Your task to perform on an android device: Open sound settings Image 0: 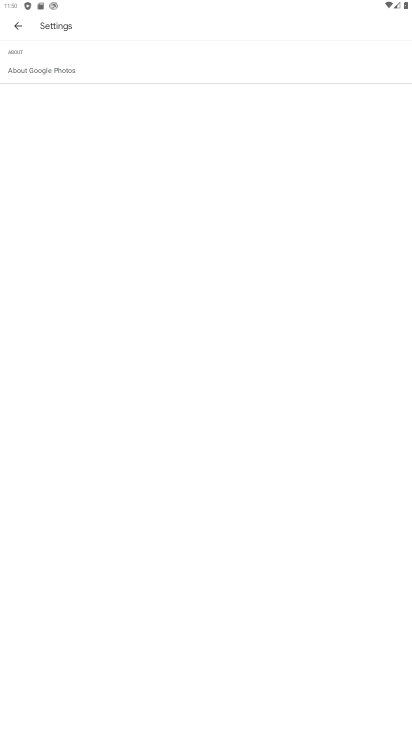
Step 0: press home button
Your task to perform on an android device: Open sound settings Image 1: 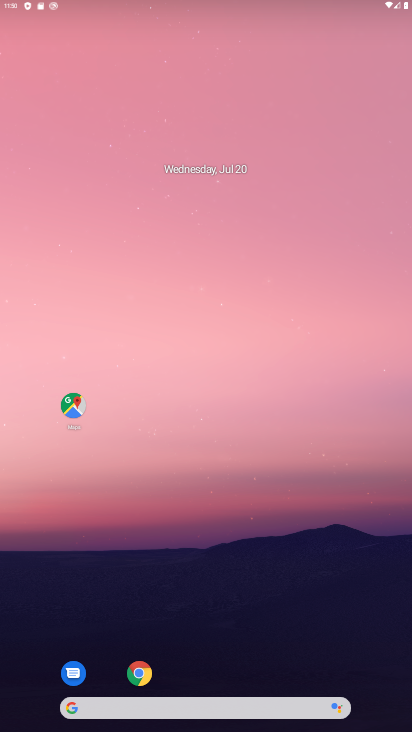
Step 1: drag from (180, 691) to (217, 166)
Your task to perform on an android device: Open sound settings Image 2: 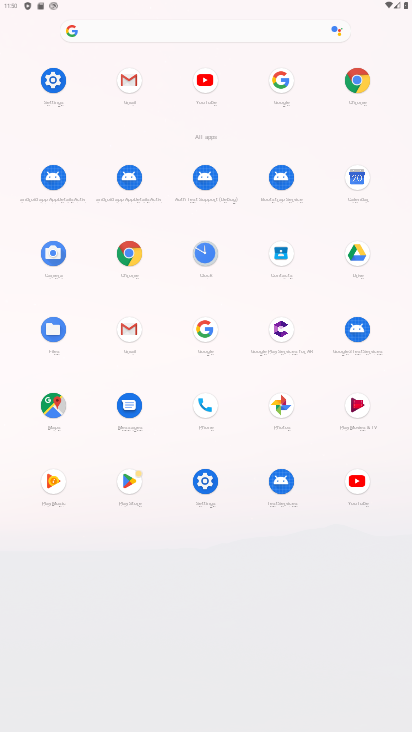
Step 2: click (50, 76)
Your task to perform on an android device: Open sound settings Image 3: 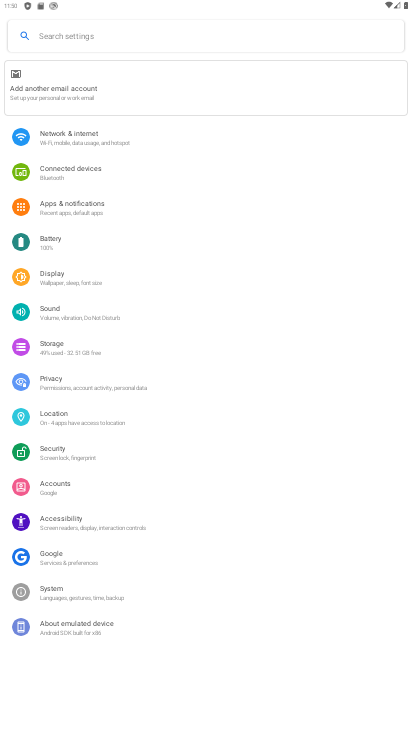
Step 3: click (46, 307)
Your task to perform on an android device: Open sound settings Image 4: 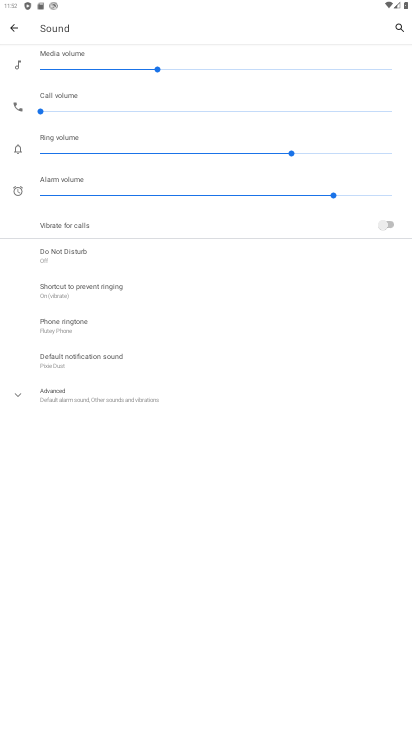
Step 4: task complete